Your task to perform on an android device: Clear the shopping cart on newegg.com. Search for logitech g pro on newegg.com, select the first entry, and add it to the cart. Image 0: 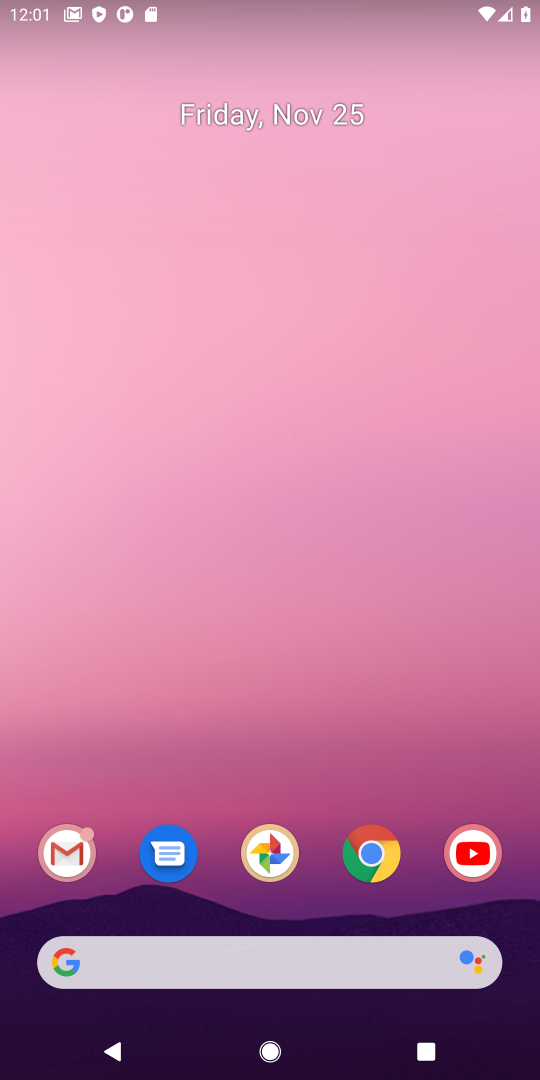
Step 0: click (248, 942)
Your task to perform on an android device: Clear the shopping cart on newegg.com. Search for logitech g pro on newegg.com, select the first entry, and add it to the cart. Image 1: 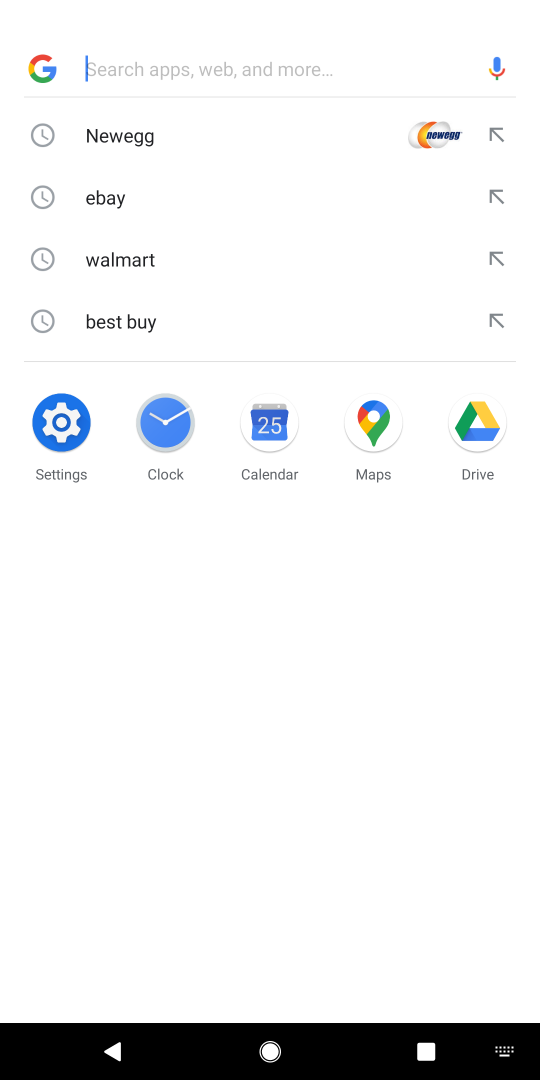
Step 1: type "newegg"
Your task to perform on an android device: Clear the shopping cart on newegg.com. Search for logitech g pro on newegg.com, select the first entry, and add it to the cart. Image 2: 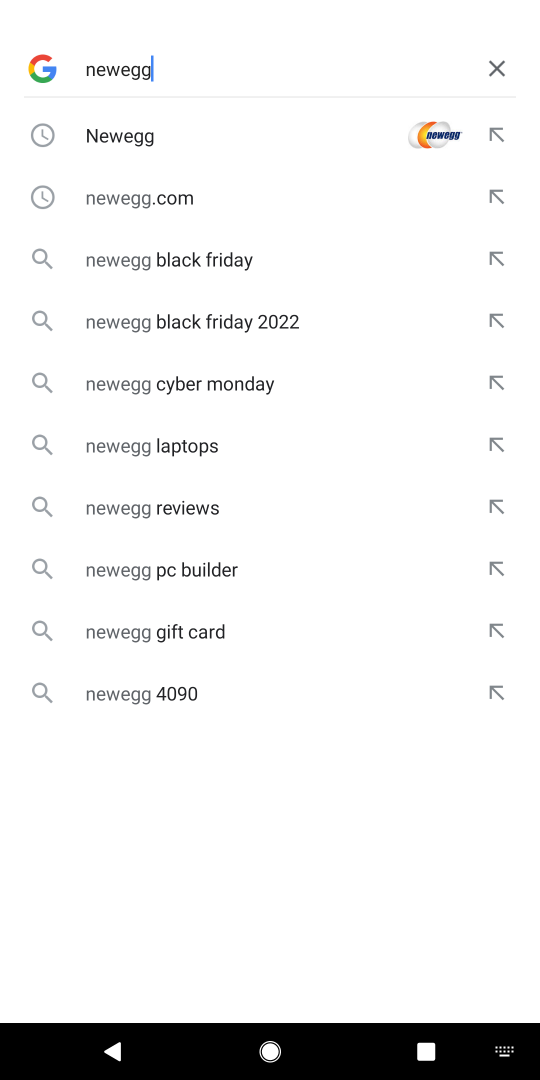
Step 2: click (235, 136)
Your task to perform on an android device: Clear the shopping cart on newegg.com. Search for logitech g pro on newegg.com, select the first entry, and add it to the cart. Image 3: 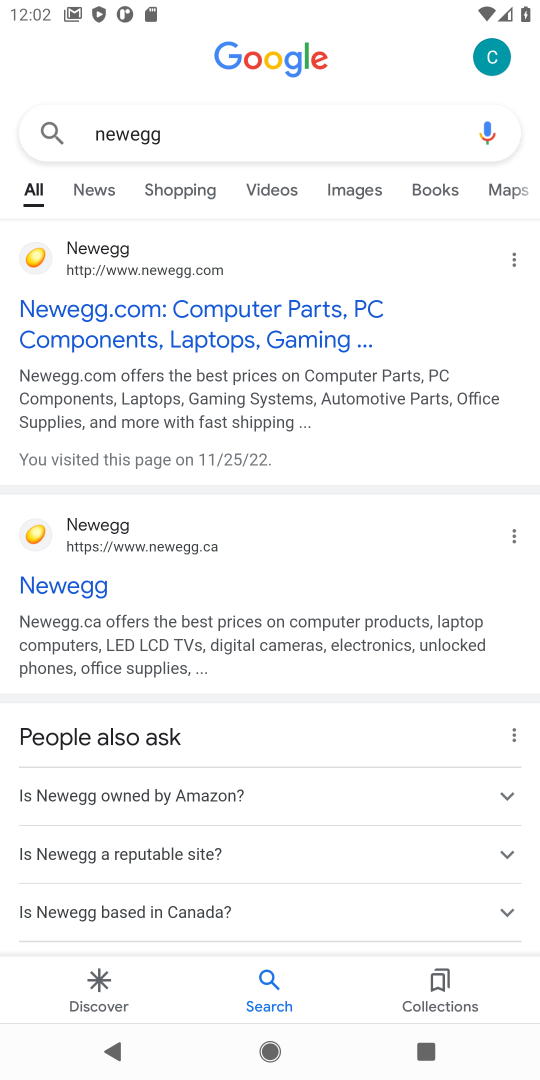
Step 3: click (163, 351)
Your task to perform on an android device: Clear the shopping cart on newegg.com. Search for logitech g pro on newegg.com, select the first entry, and add it to the cart. Image 4: 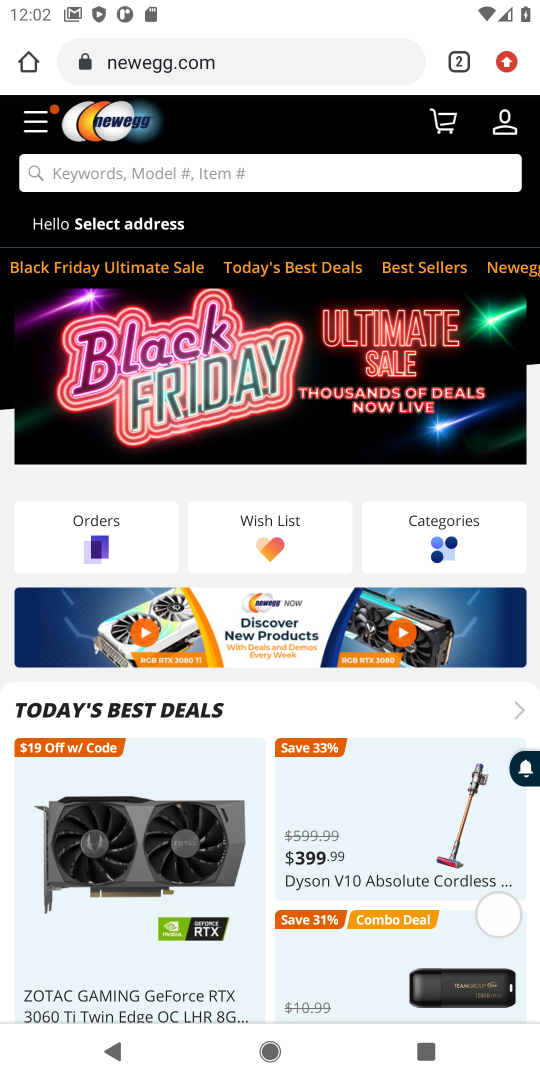
Step 4: click (215, 190)
Your task to perform on an android device: Clear the shopping cart on newegg.com. Search for logitech g pro on newegg.com, select the first entry, and add it to the cart. Image 5: 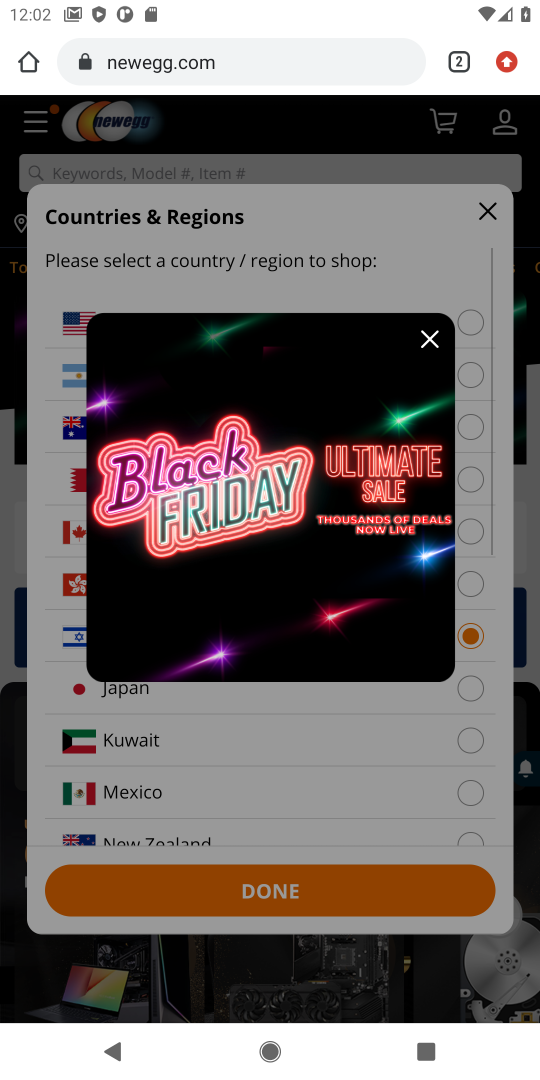
Step 5: click (429, 346)
Your task to perform on an android device: Clear the shopping cart on newegg.com. Search for logitech g pro on newegg.com, select the first entry, and add it to the cart. Image 6: 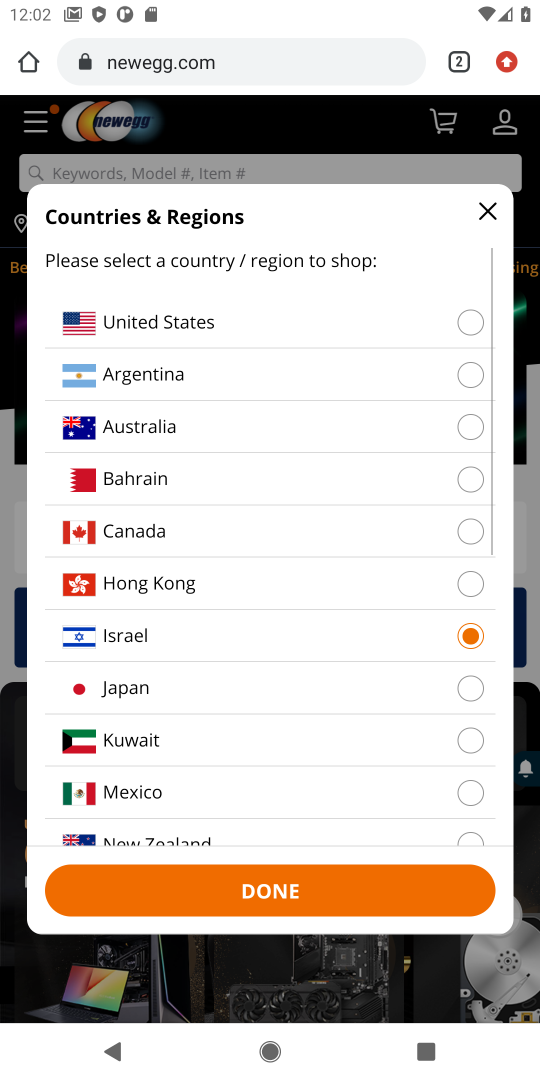
Step 6: click (429, 346)
Your task to perform on an android device: Clear the shopping cart on newegg.com. Search for logitech g pro on newegg.com, select the first entry, and add it to the cart. Image 7: 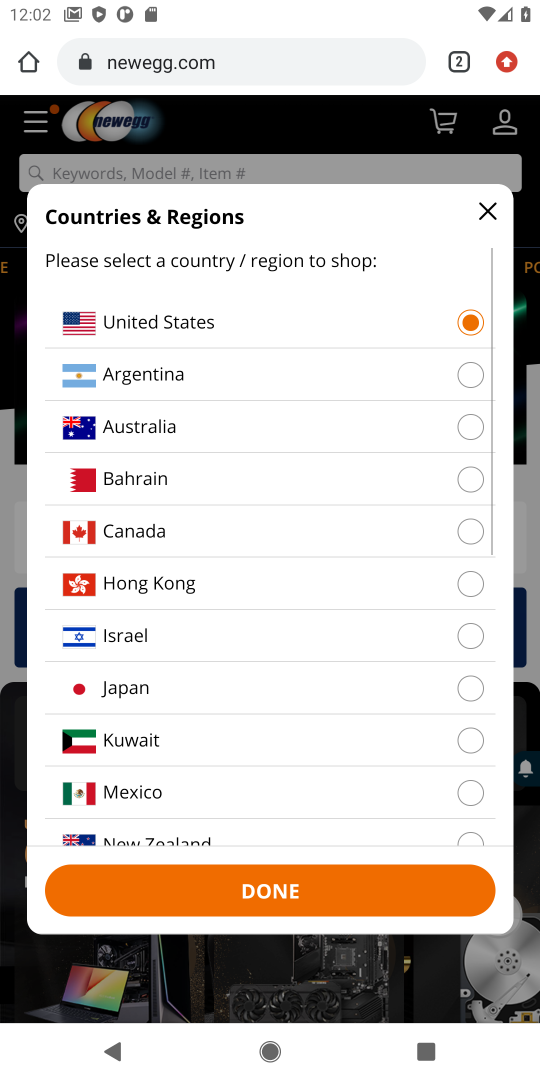
Step 7: click (351, 903)
Your task to perform on an android device: Clear the shopping cart on newegg.com. Search for logitech g pro on newegg.com, select the first entry, and add it to the cart. Image 8: 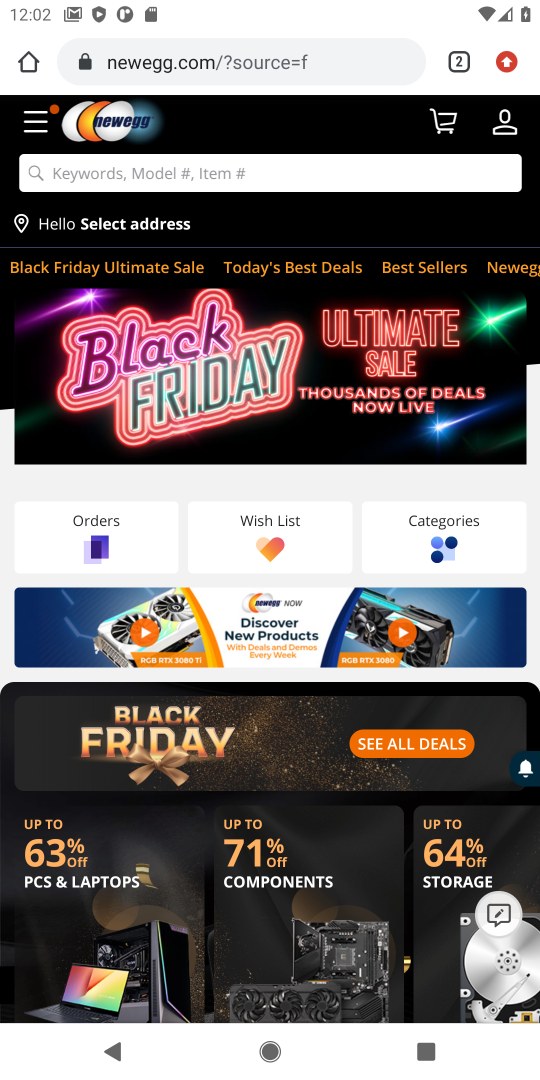
Step 8: click (322, 180)
Your task to perform on an android device: Clear the shopping cart on newegg.com. Search for logitech g pro on newegg.com, select the first entry, and add it to the cart. Image 9: 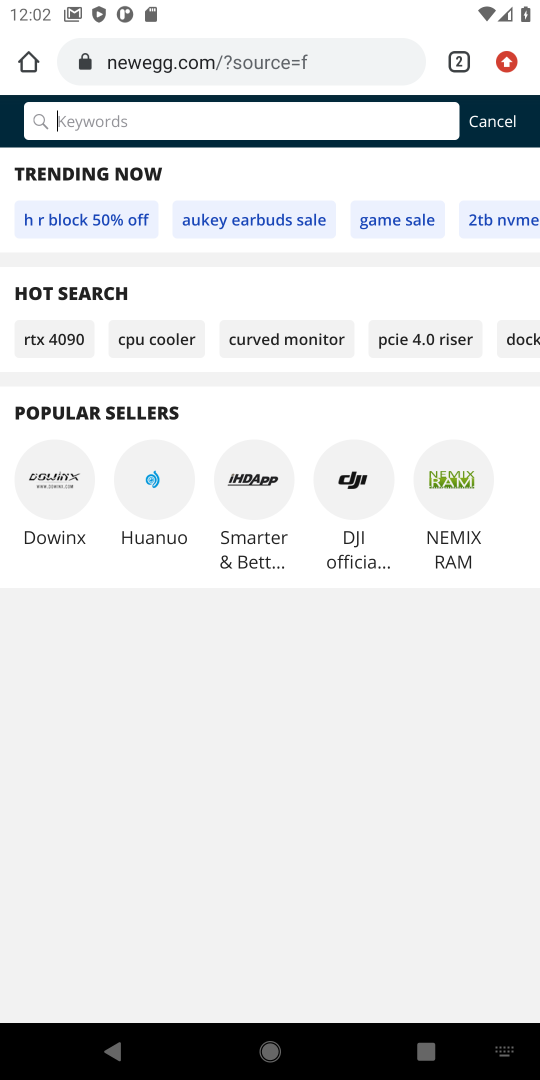
Step 9: type "logitech g pro"
Your task to perform on an android device: Clear the shopping cart on newegg.com. Search for logitech g pro on newegg.com, select the first entry, and add it to the cart. Image 10: 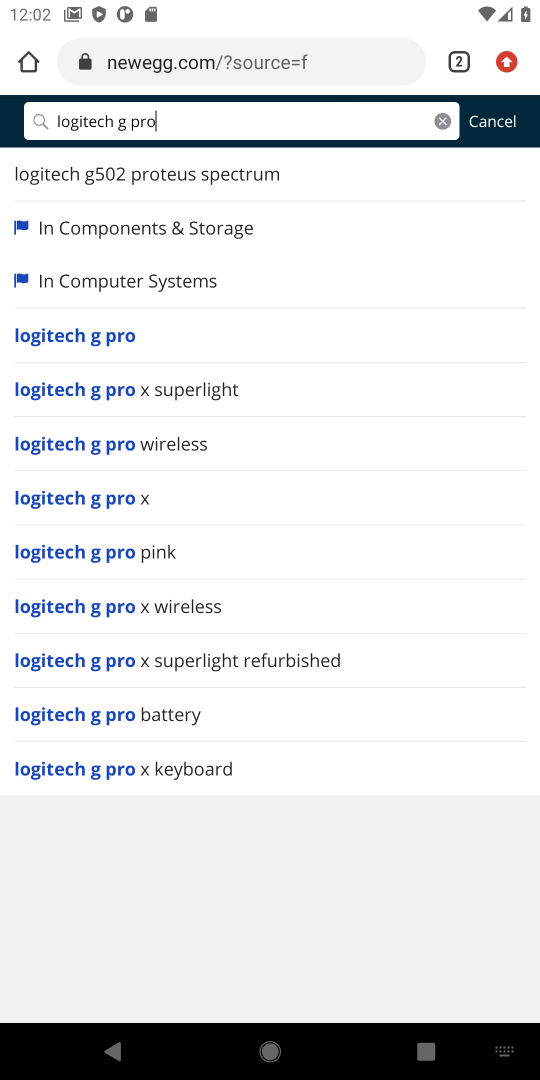
Step 10: click (97, 185)
Your task to perform on an android device: Clear the shopping cart on newegg.com. Search for logitech g pro on newegg.com, select the first entry, and add it to the cart. Image 11: 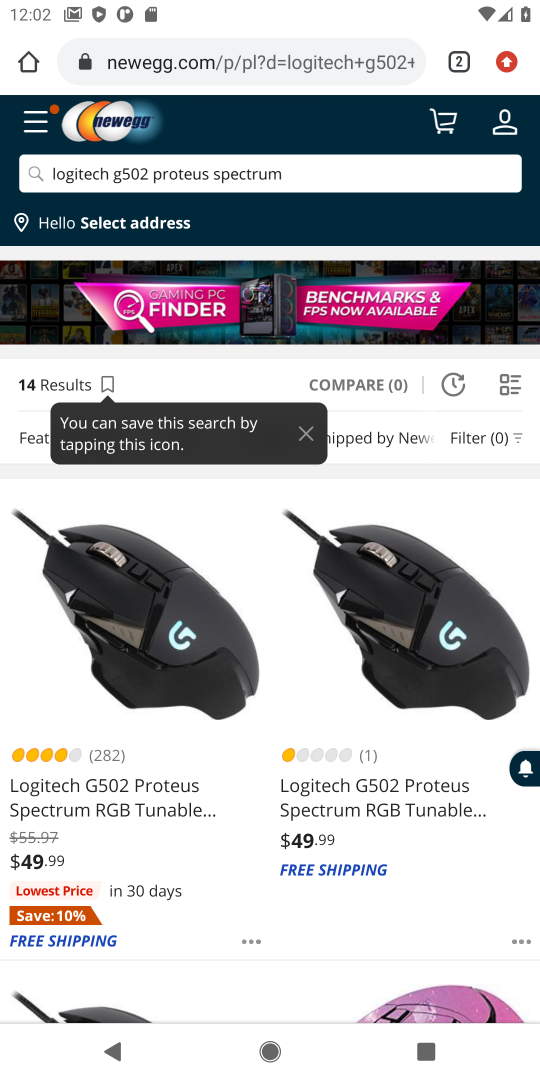
Step 11: click (145, 762)
Your task to perform on an android device: Clear the shopping cart on newegg.com. Search for logitech g pro on newegg.com, select the first entry, and add it to the cart. Image 12: 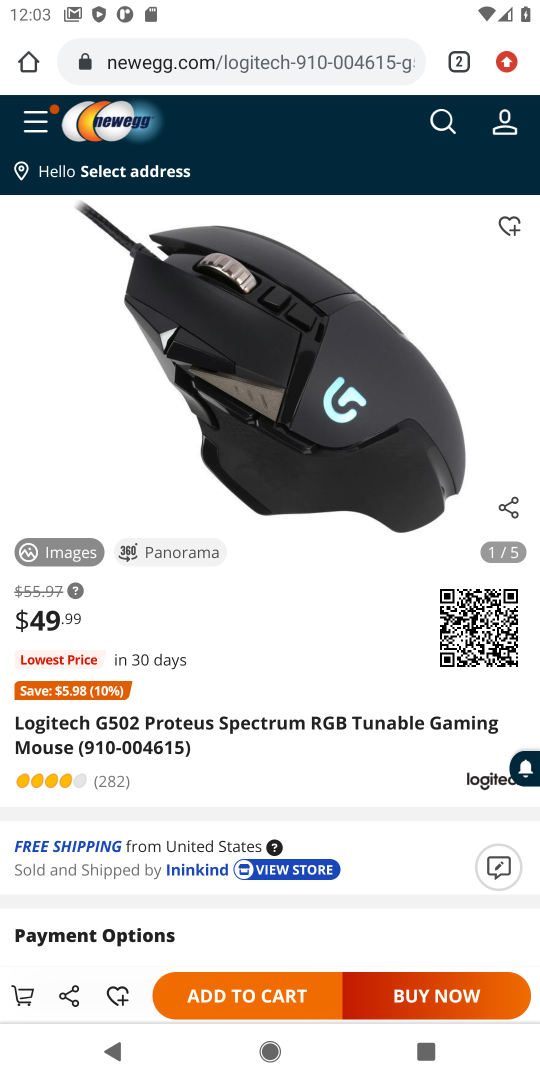
Step 12: click (226, 1009)
Your task to perform on an android device: Clear the shopping cart on newegg.com. Search for logitech g pro on newegg.com, select the first entry, and add it to the cart. Image 13: 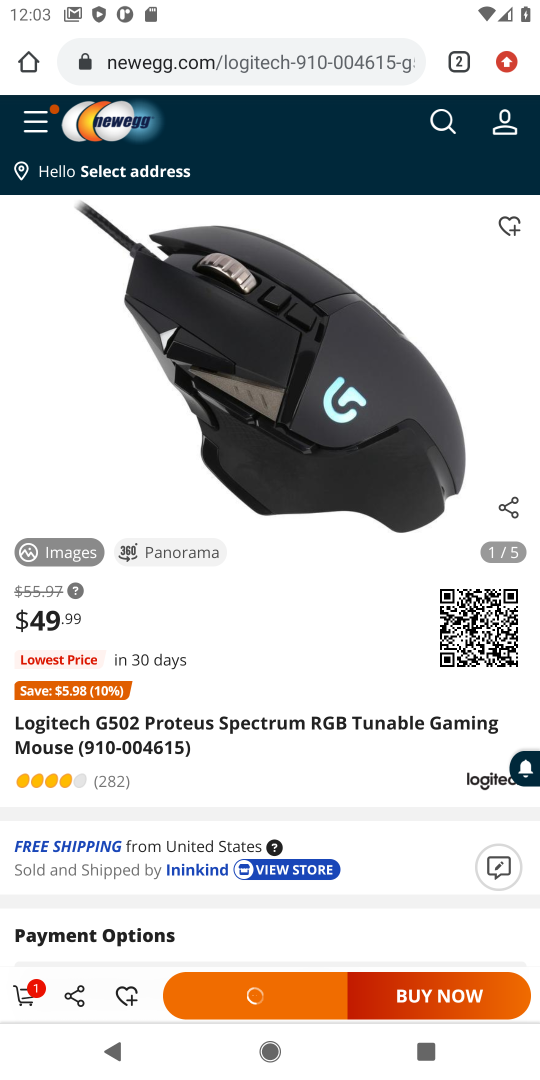
Step 13: task complete